Your task to perform on an android device: open app "Clock" Image 0: 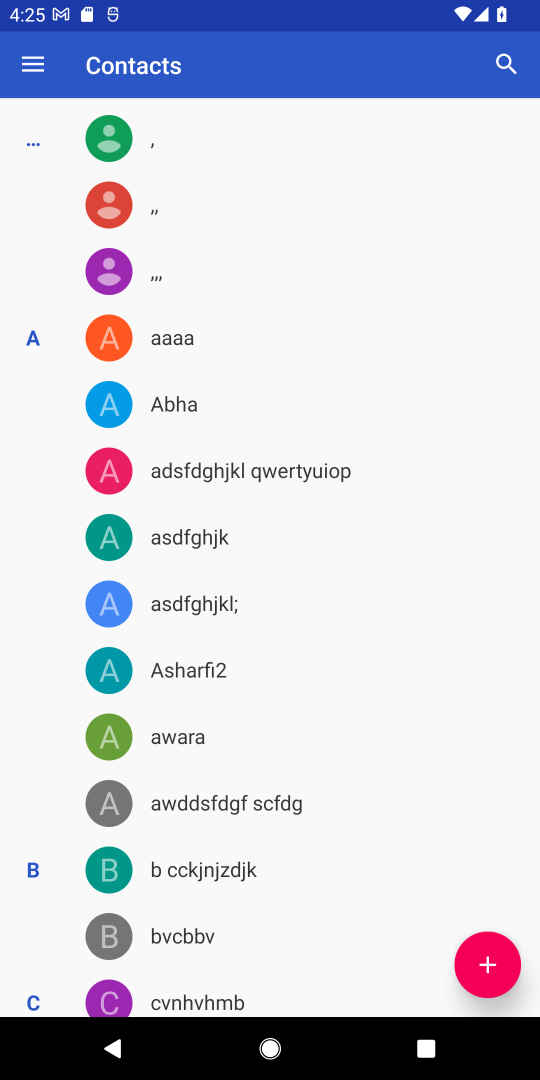
Step 0: press home button
Your task to perform on an android device: open app "Clock" Image 1: 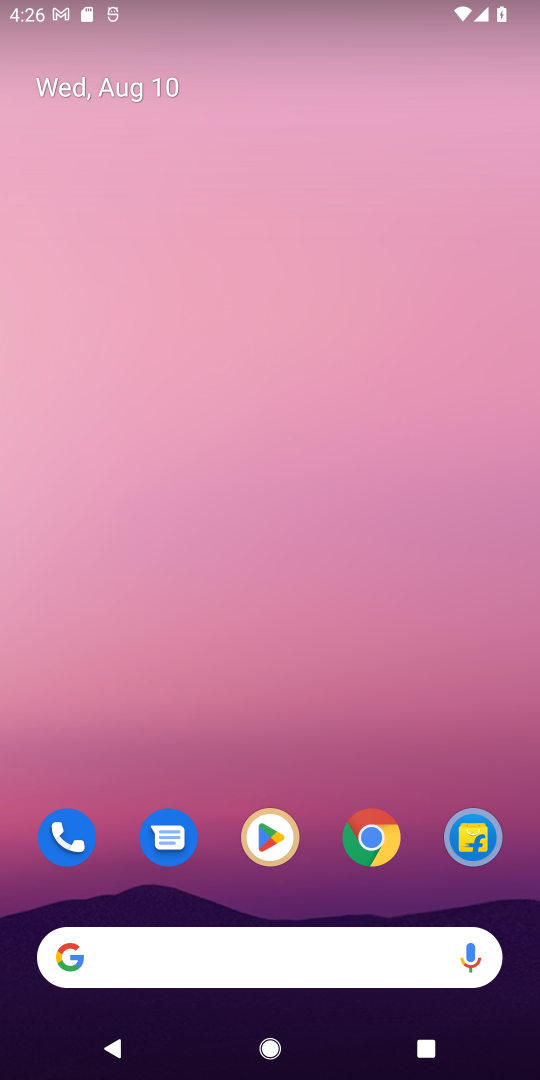
Step 1: click (266, 843)
Your task to perform on an android device: open app "Clock" Image 2: 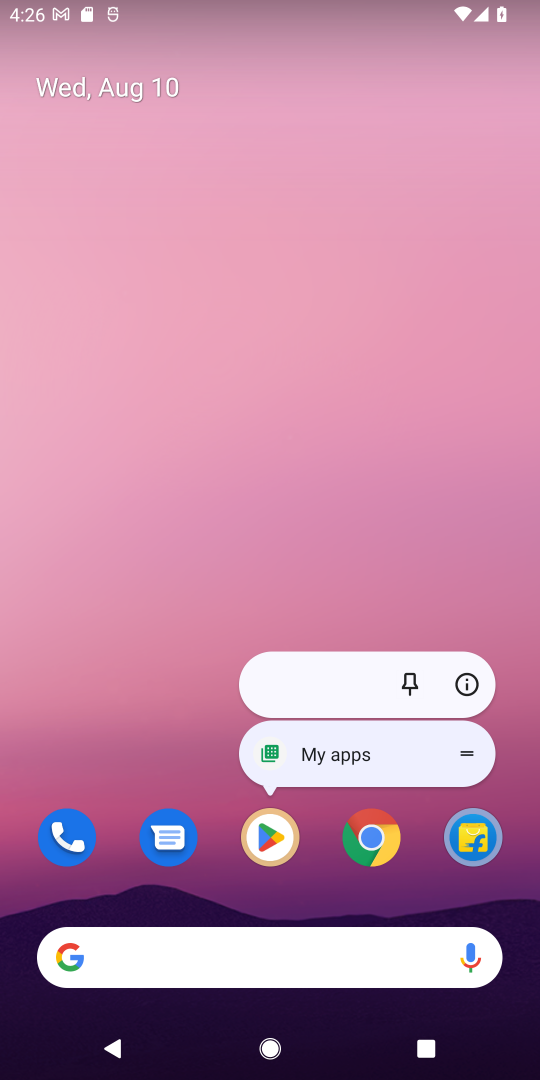
Step 2: click (266, 843)
Your task to perform on an android device: open app "Clock" Image 3: 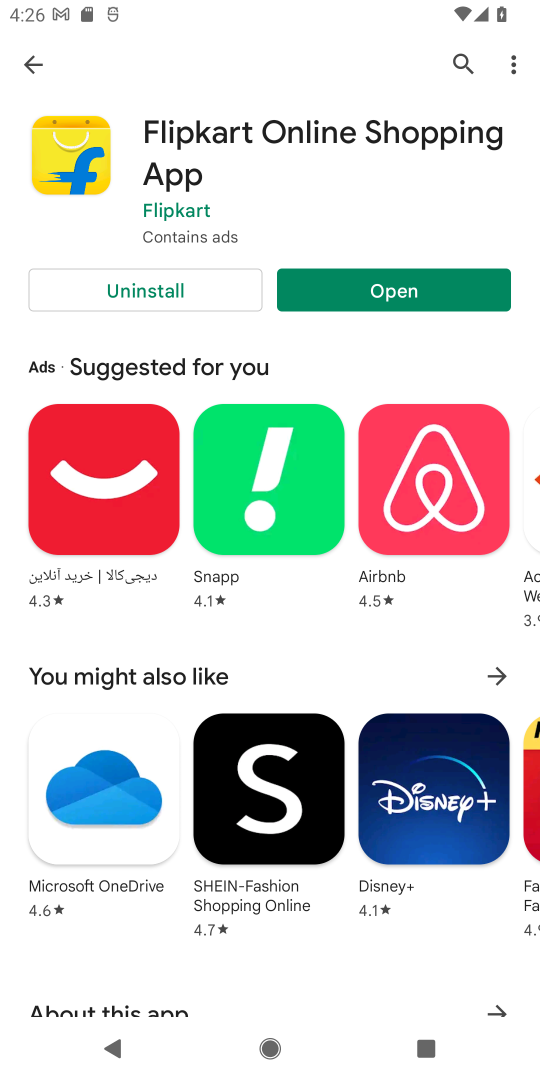
Step 3: click (461, 58)
Your task to perform on an android device: open app "Clock" Image 4: 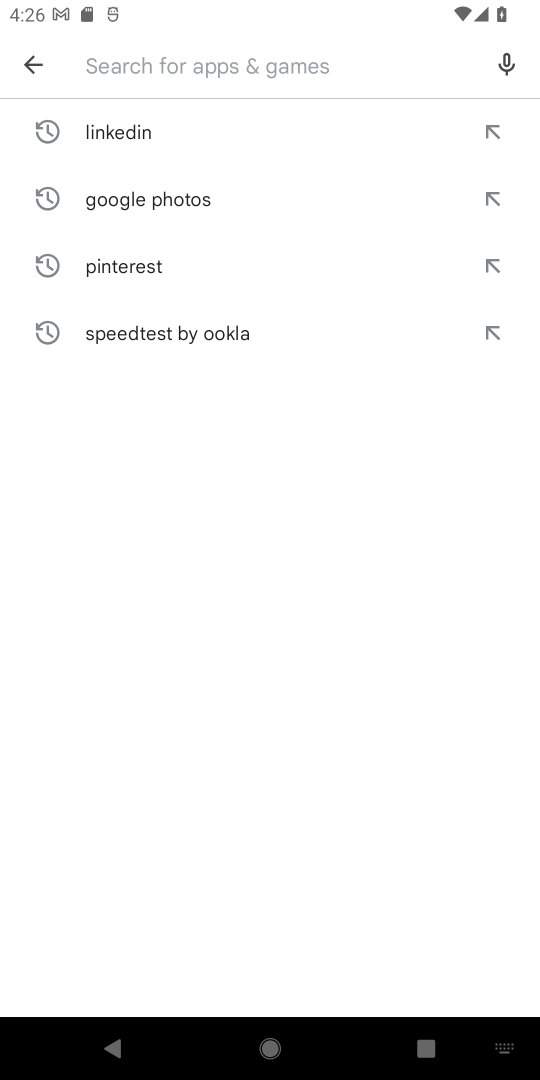
Step 4: type "Clock"
Your task to perform on an android device: open app "Clock" Image 5: 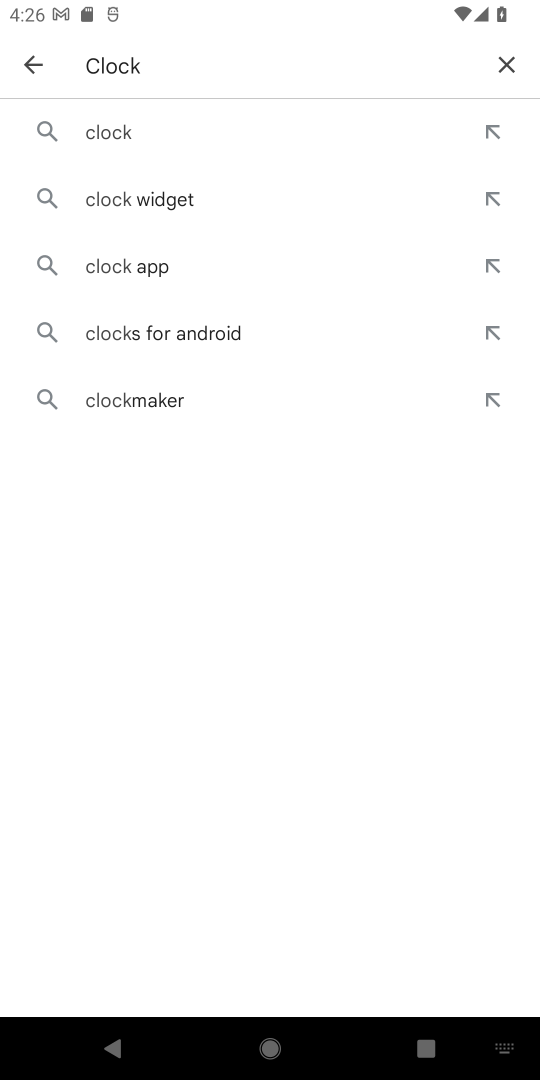
Step 5: click (106, 146)
Your task to perform on an android device: open app "Clock" Image 6: 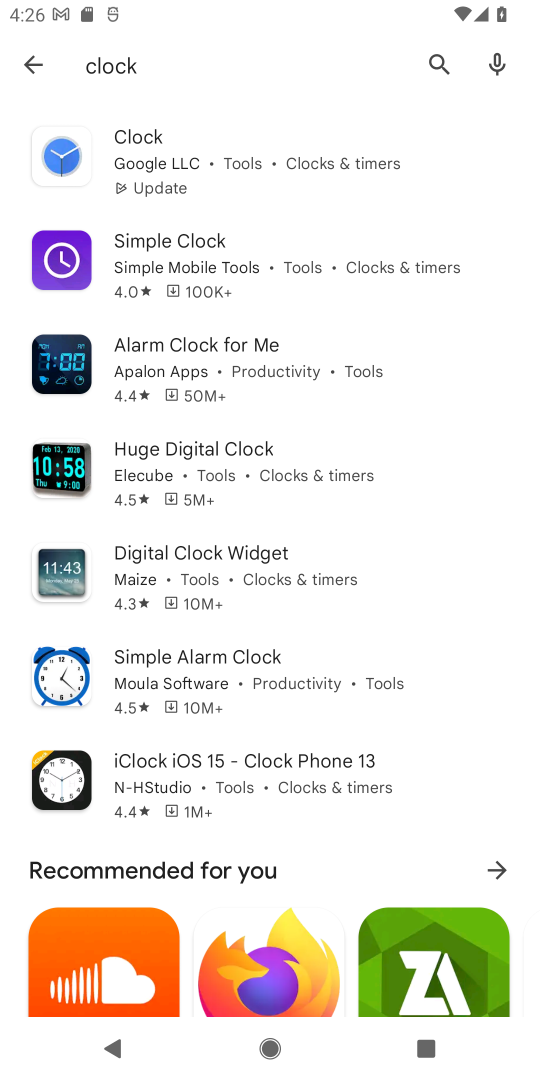
Step 6: click (183, 159)
Your task to perform on an android device: open app "Clock" Image 7: 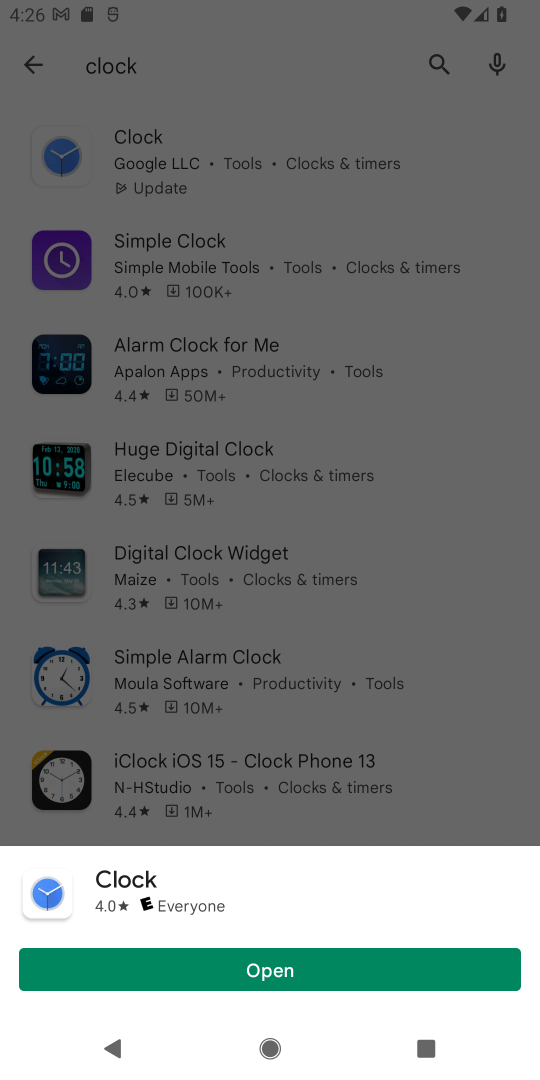
Step 7: click (266, 971)
Your task to perform on an android device: open app "Clock" Image 8: 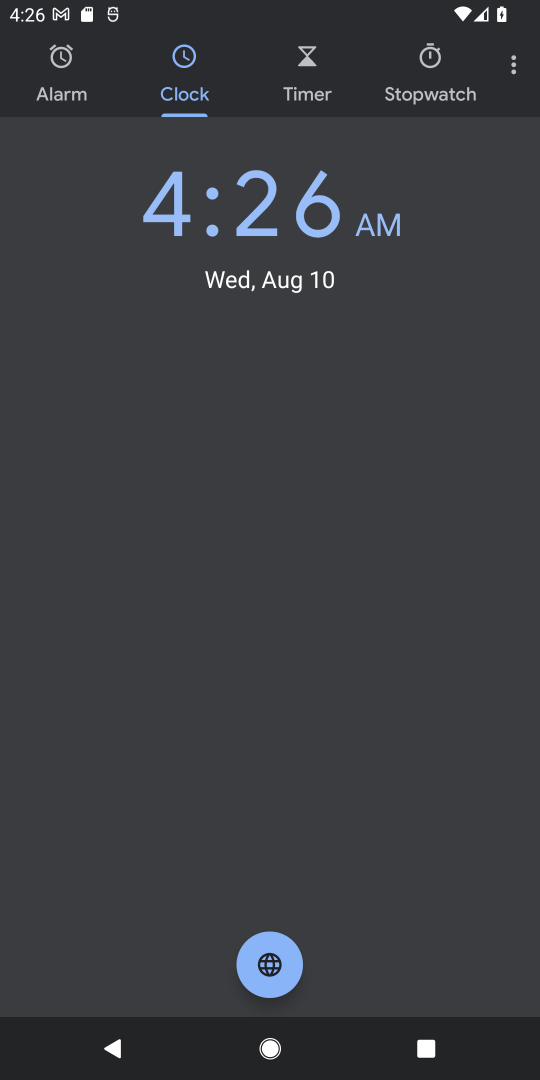
Step 8: task complete